Your task to perform on an android device: check out phone information Image 0: 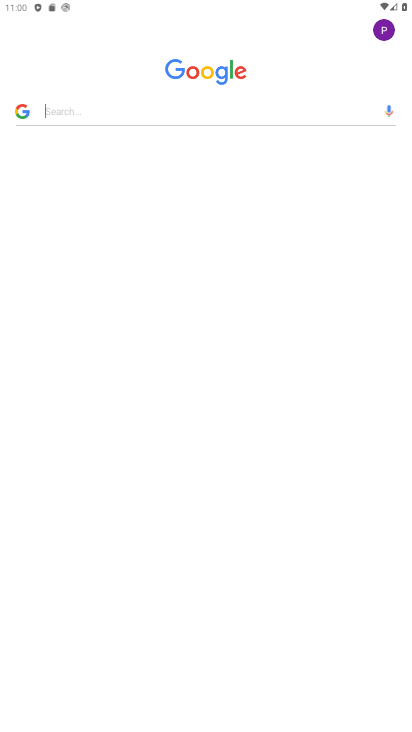
Step 0: press home button
Your task to perform on an android device: check out phone information Image 1: 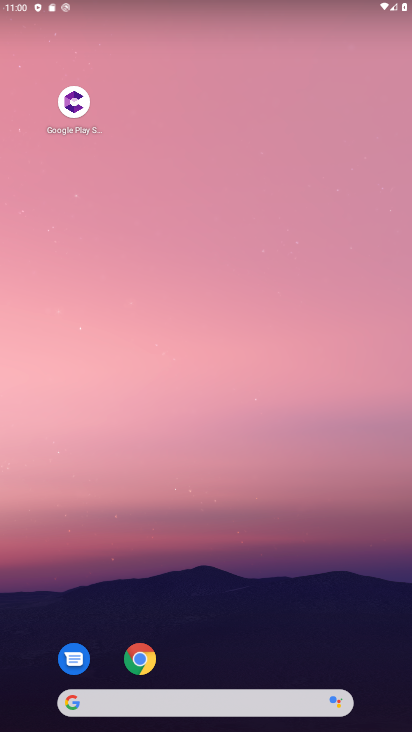
Step 1: drag from (299, 614) to (351, 64)
Your task to perform on an android device: check out phone information Image 2: 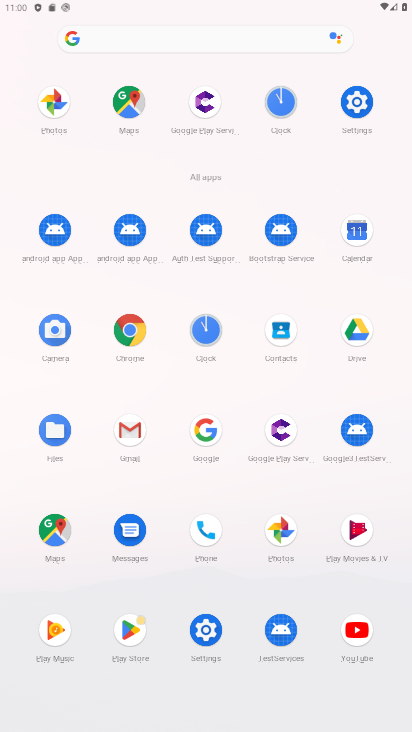
Step 2: click (351, 97)
Your task to perform on an android device: check out phone information Image 3: 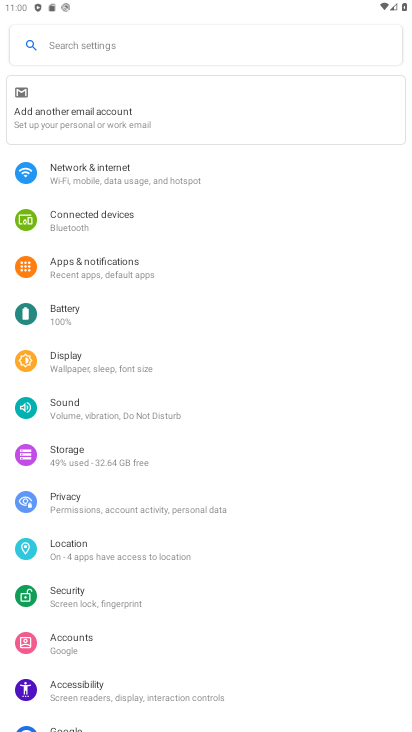
Step 3: drag from (182, 614) to (227, 45)
Your task to perform on an android device: check out phone information Image 4: 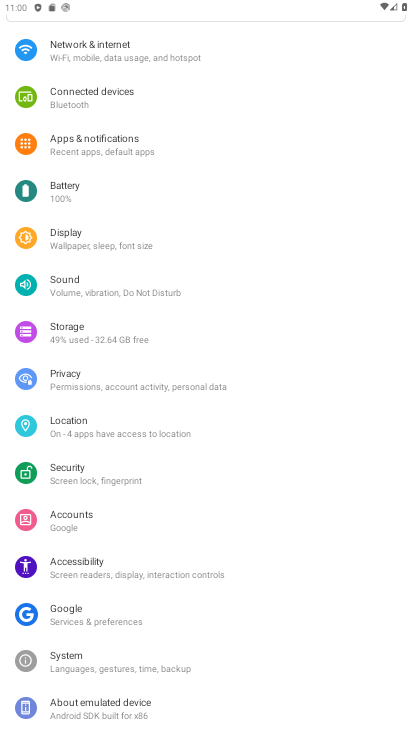
Step 4: drag from (137, 641) to (170, 136)
Your task to perform on an android device: check out phone information Image 5: 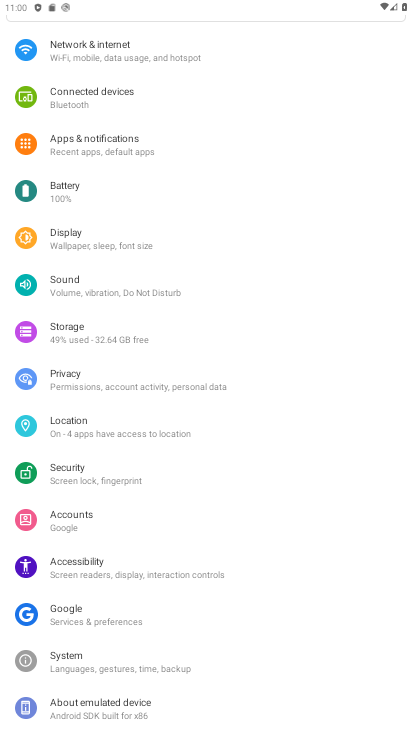
Step 5: click (78, 707)
Your task to perform on an android device: check out phone information Image 6: 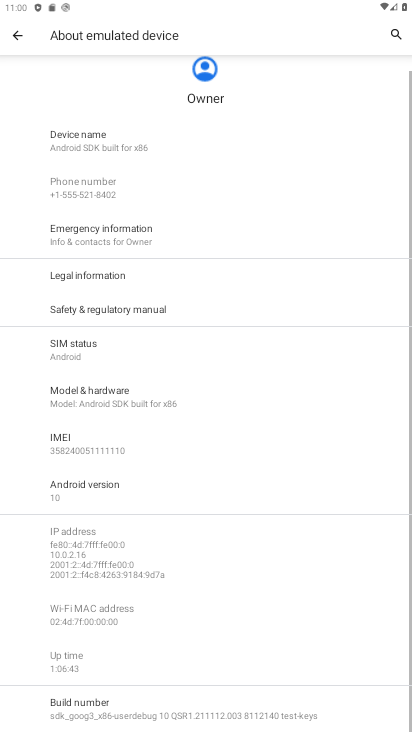
Step 6: task complete